Your task to perform on an android device: see sites visited before in the chrome app Image 0: 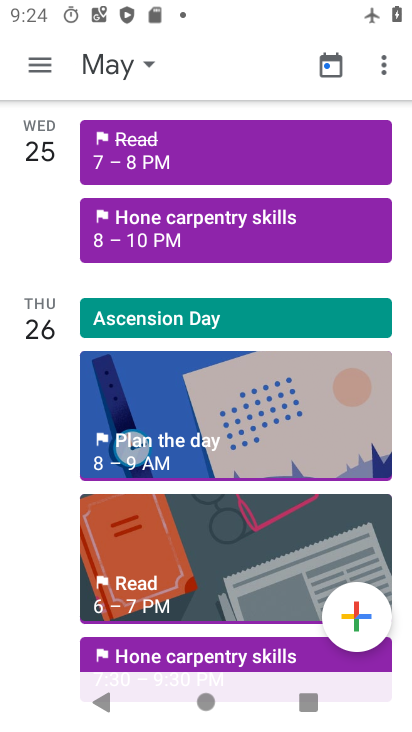
Step 0: press home button
Your task to perform on an android device: see sites visited before in the chrome app Image 1: 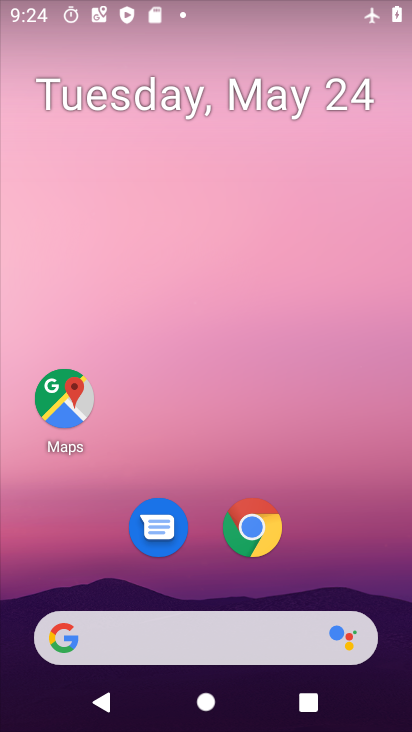
Step 1: click (262, 535)
Your task to perform on an android device: see sites visited before in the chrome app Image 2: 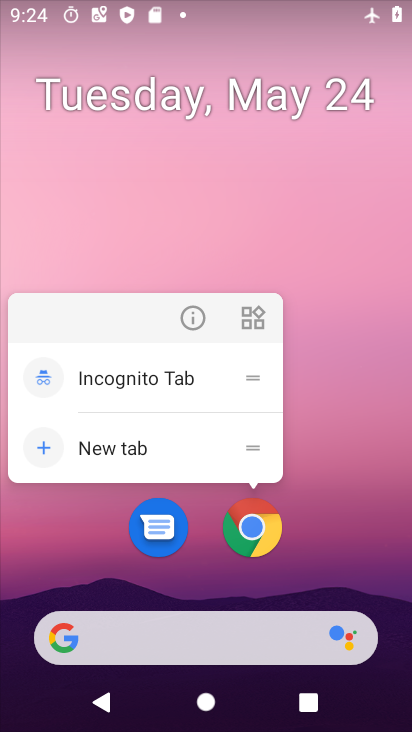
Step 2: click (249, 518)
Your task to perform on an android device: see sites visited before in the chrome app Image 3: 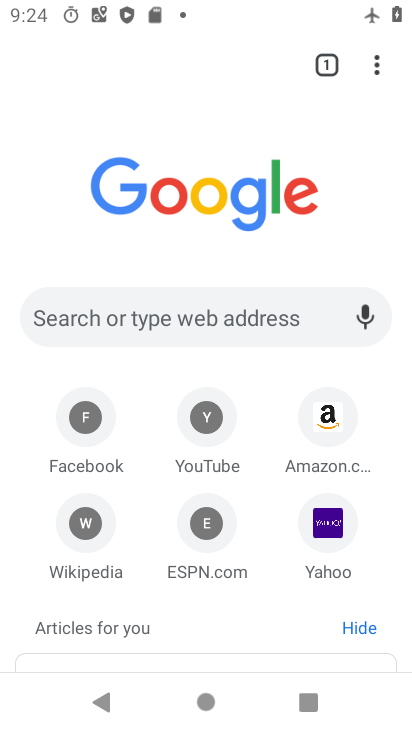
Step 3: click (379, 60)
Your task to perform on an android device: see sites visited before in the chrome app Image 4: 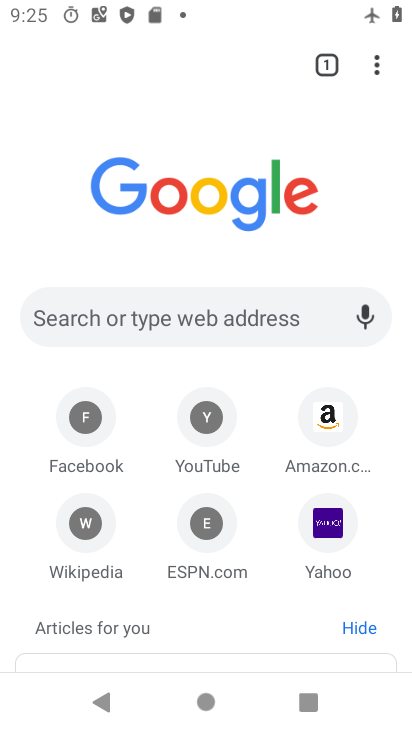
Step 4: click (373, 64)
Your task to perform on an android device: see sites visited before in the chrome app Image 5: 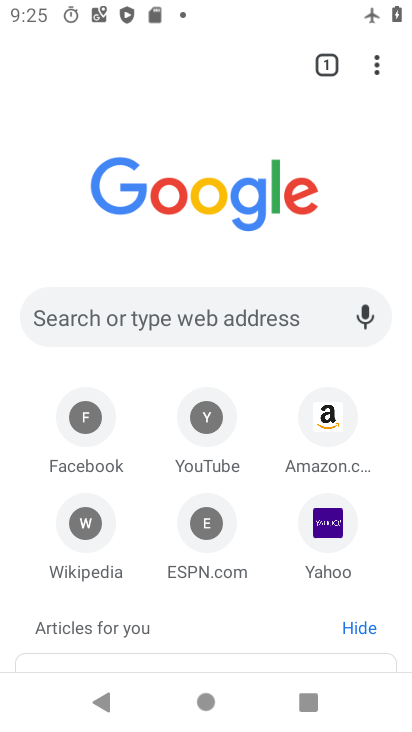
Step 5: click (373, 64)
Your task to perform on an android device: see sites visited before in the chrome app Image 6: 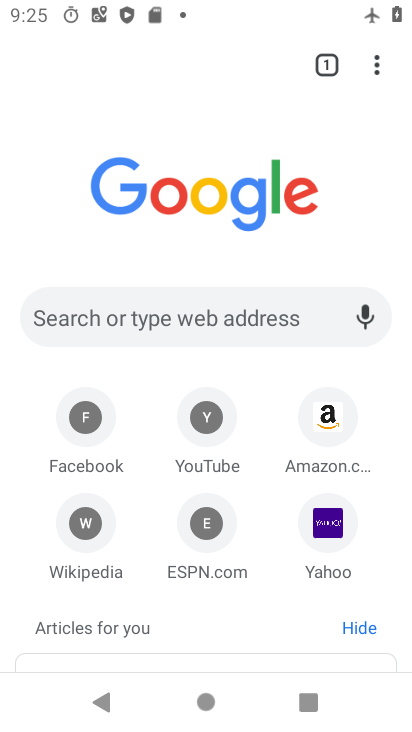
Step 6: click (373, 64)
Your task to perform on an android device: see sites visited before in the chrome app Image 7: 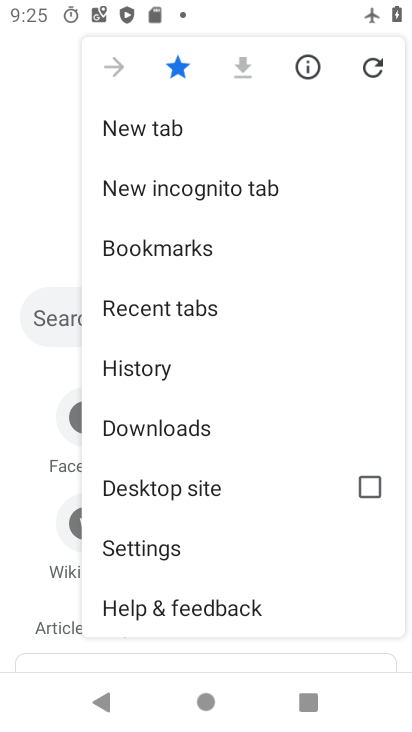
Step 7: click (137, 313)
Your task to perform on an android device: see sites visited before in the chrome app Image 8: 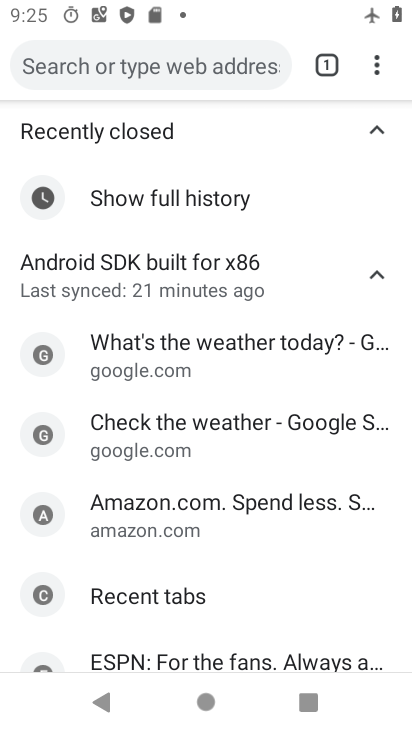
Step 8: task complete